Your task to perform on an android device: toggle improve location accuracy Image 0: 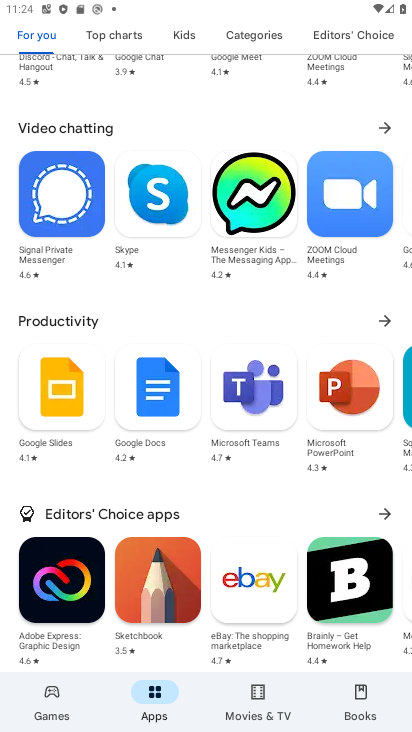
Step 0: press home button
Your task to perform on an android device: toggle improve location accuracy Image 1: 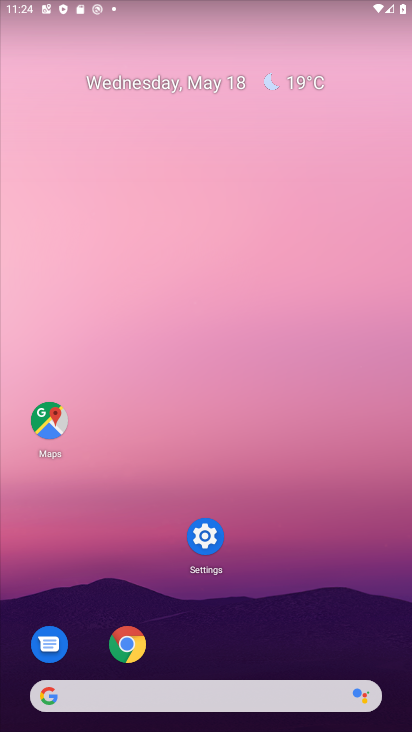
Step 1: drag from (314, 595) to (269, 161)
Your task to perform on an android device: toggle improve location accuracy Image 2: 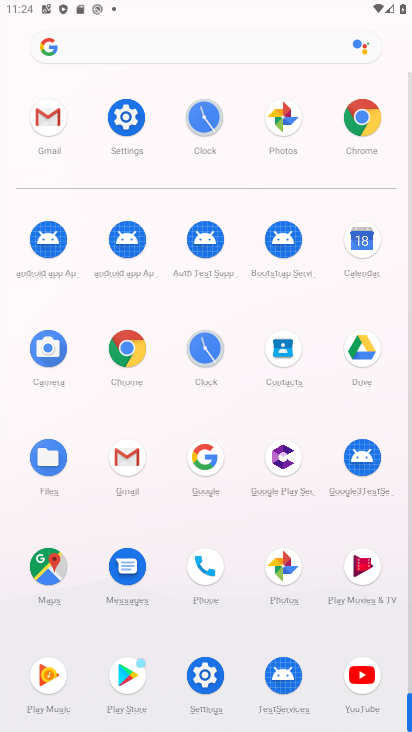
Step 2: click (119, 115)
Your task to perform on an android device: toggle improve location accuracy Image 3: 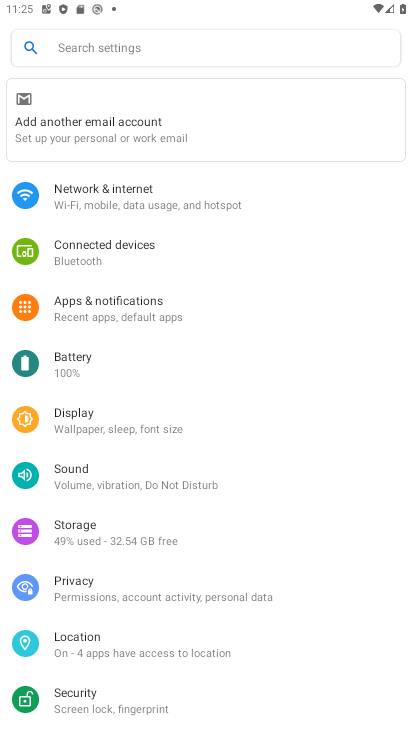
Step 3: drag from (209, 616) to (234, 356)
Your task to perform on an android device: toggle improve location accuracy Image 4: 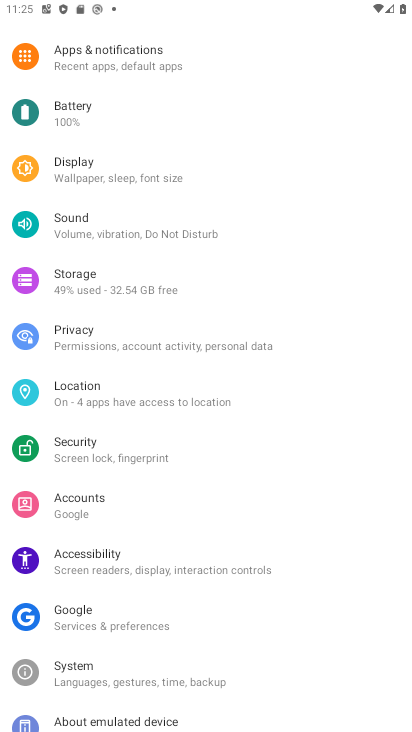
Step 4: click (152, 406)
Your task to perform on an android device: toggle improve location accuracy Image 5: 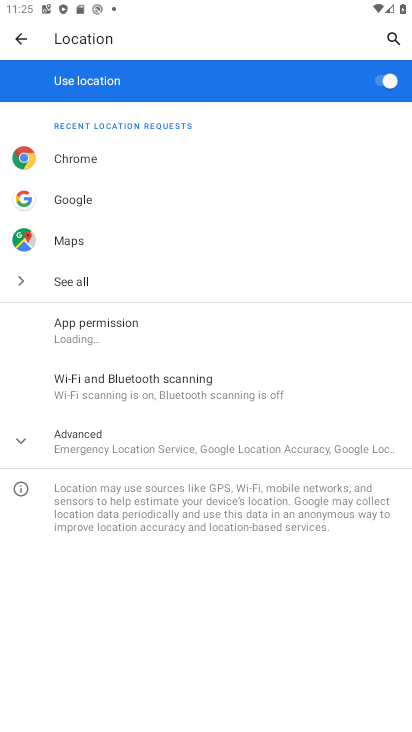
Step 5: click (118, 442)
Your task to perform on an android device: toggle improve location accuracy Image 6: 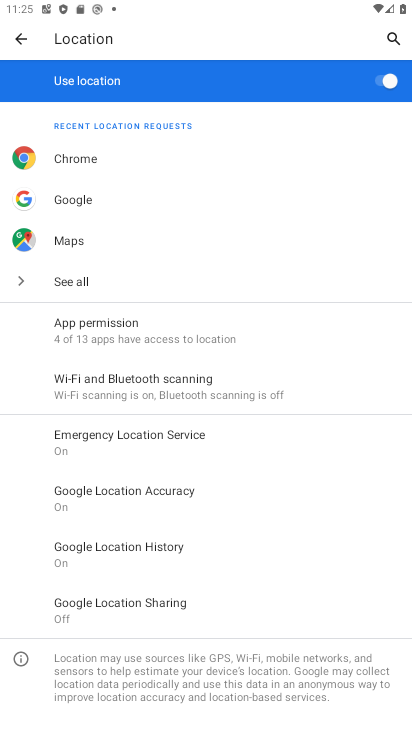
Step 6: click (176, 502)
Your task to perform on an android device: toggle improve location accuracy Image 7: 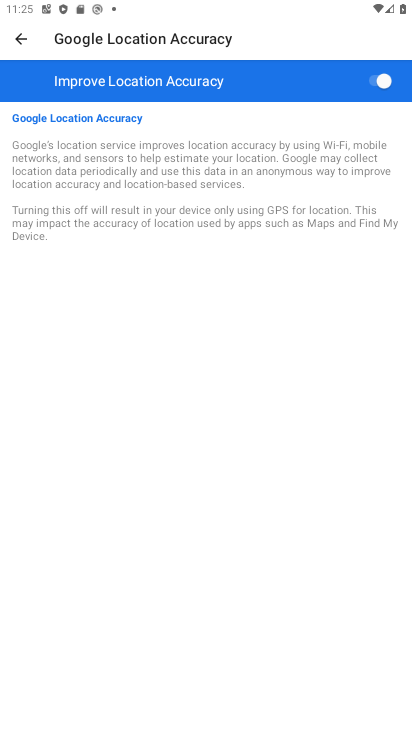
Step 7: click (379, 83)
Your task to perform on an android device: toggle improve location accuracy Image 8: 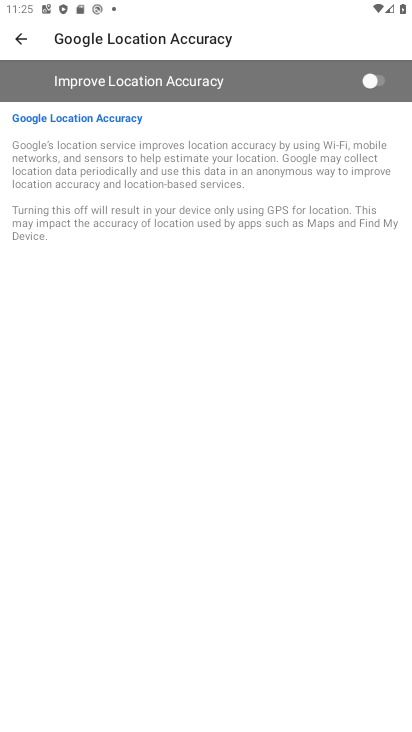
Step 8: task complete